Your task to perform on an android device: turn off wifi Image 0: 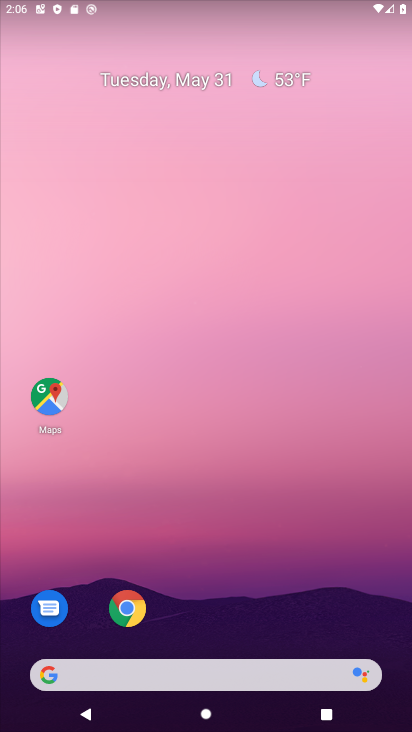
Step 0: drag from (203, 0) to (229, 566)
Your task to perform on an android device: turn off wifi Image 1: 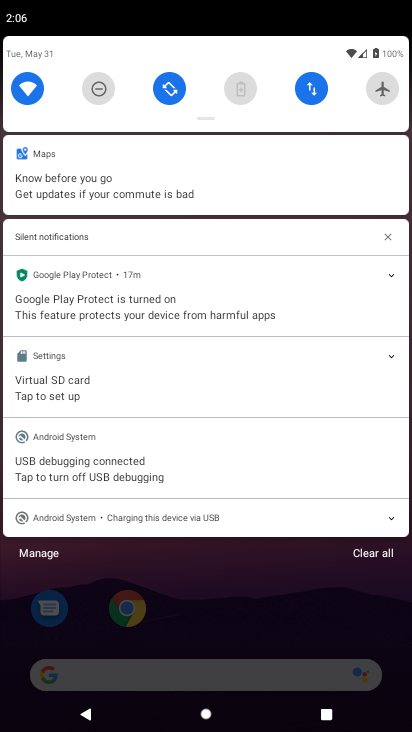
Step 1: click (35, 96)
Your task to perform on an android device: turn off wifi Image 2: 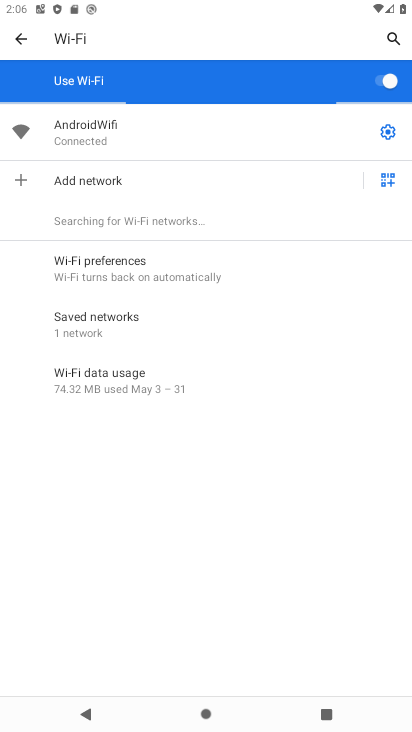
Step 2: click (384, 75)
Your task to perform on an android device: turn off wifi Image 3: 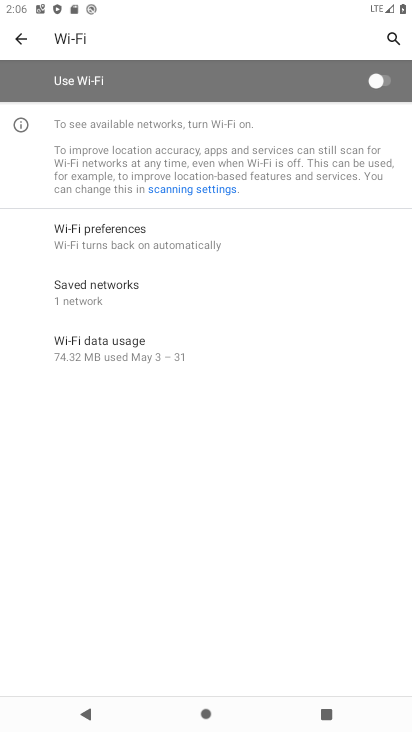
Step 3: task complete